Your task to perform on an android device: create a new album in the google photos Image 0: 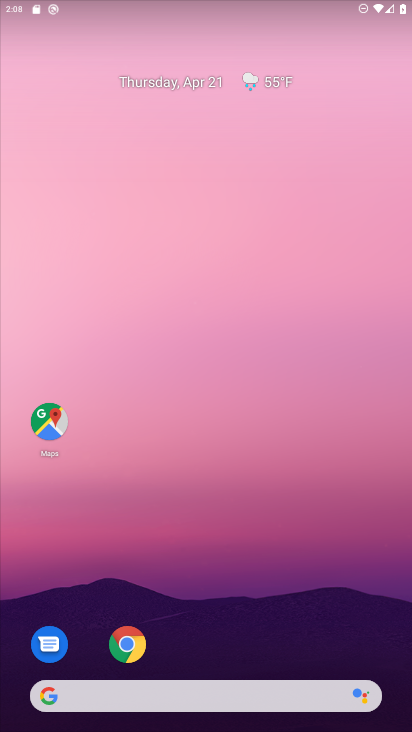
Step 0: drag from (289, 567) to (181, 223)
Your task to perform on an android device: create a new album in the google photos Image 1: 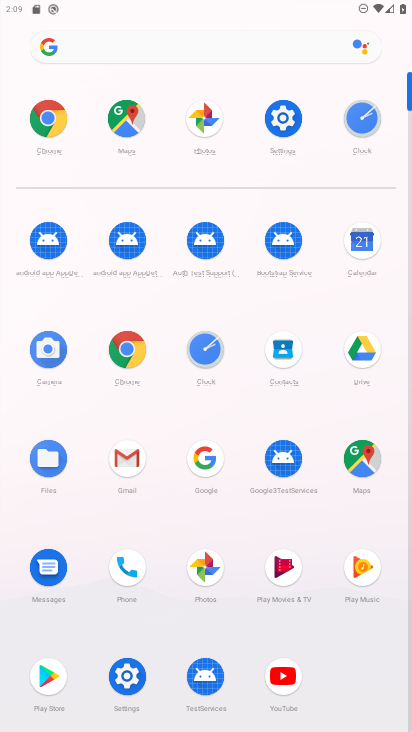
Step 1: click (206, 123)
Your task to perform on an android device: create a new album in the google photos Image 2: 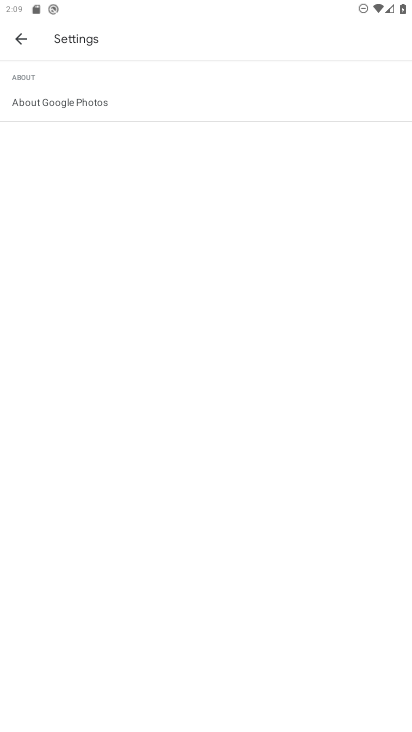
Step 2: click (21, 38)
Your task to perform on an android device: create a new album in the google photos Image 3: 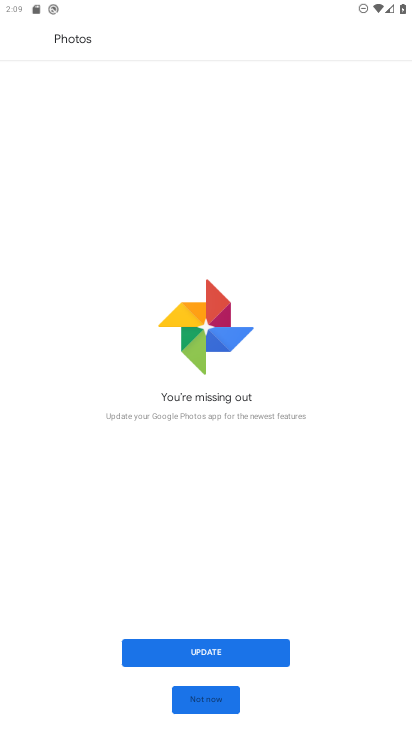
Step 3: click (247, 645)
Your task to perform on an android device: create a new album in the google photos Image 4: 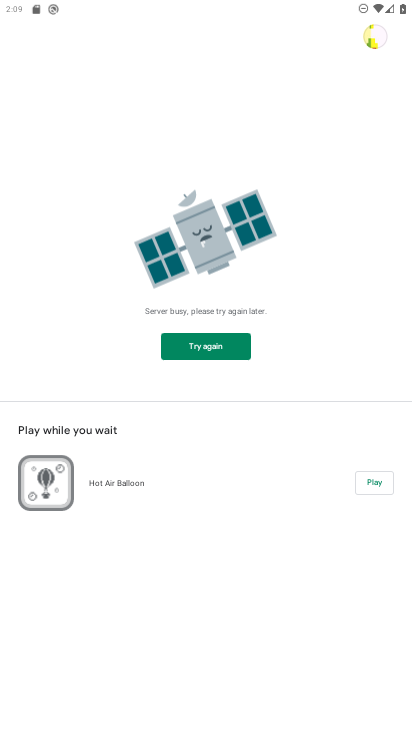
Step 4: task complete